Your task to perform on an android device: Open my contact list Image 0: 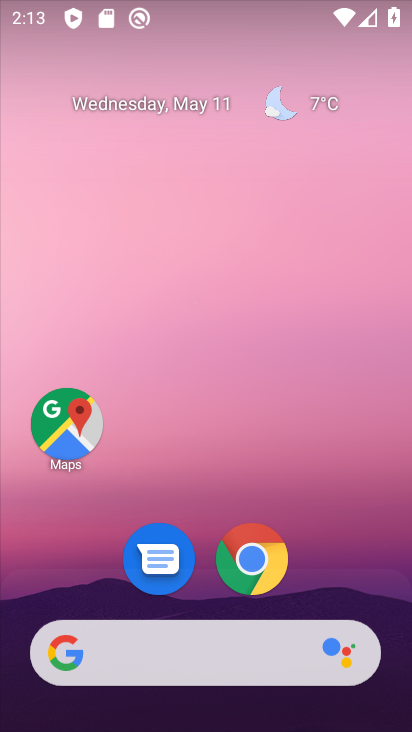
Step 0: drag from (336, 544) to (221, 116)
Your task to perform on an android device: Open my contact list Image 1: 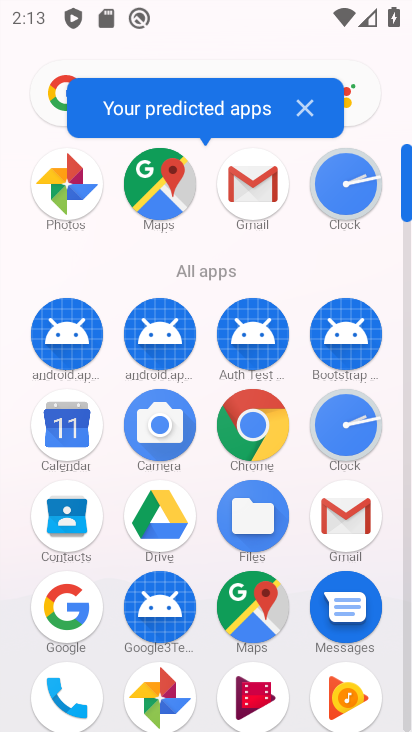
Step 1: click (74, 528)
Your task to perform on an android device: Open my contact list Image 2: 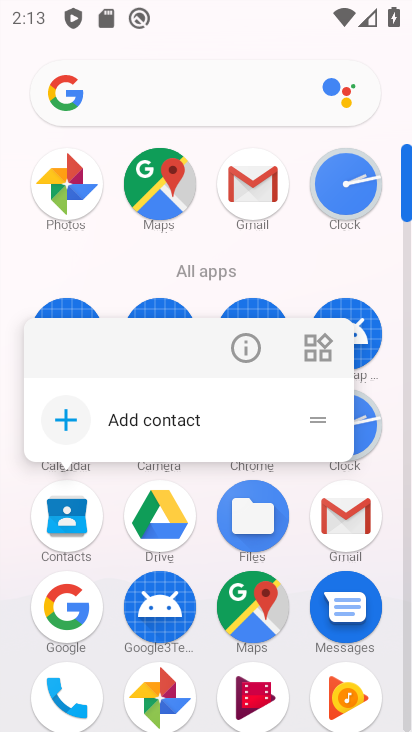
Step 2: click (56, 518)
Your task to perform on an android device: Open my contact list Image 3: 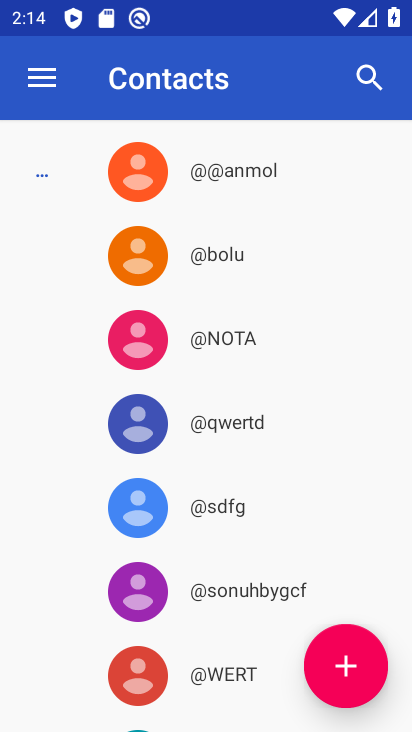
Step 3: task complete